Your task to perform on an android device: turn on showing notifications on the lock screen Image 0: 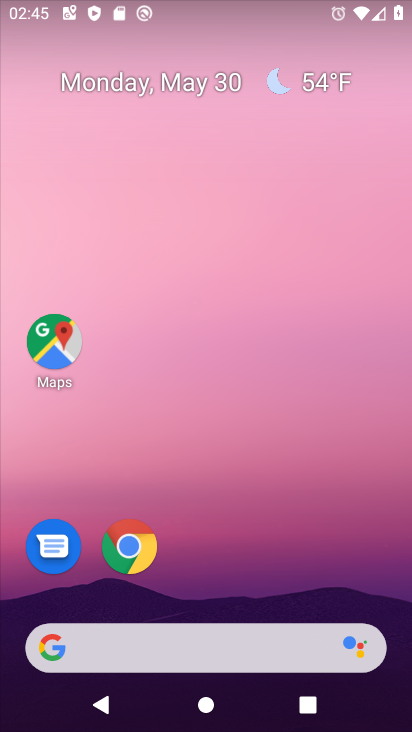
Step 0: press home button
Your task to perform on an android device: turn on showing notifications on the lock screen Image 1: 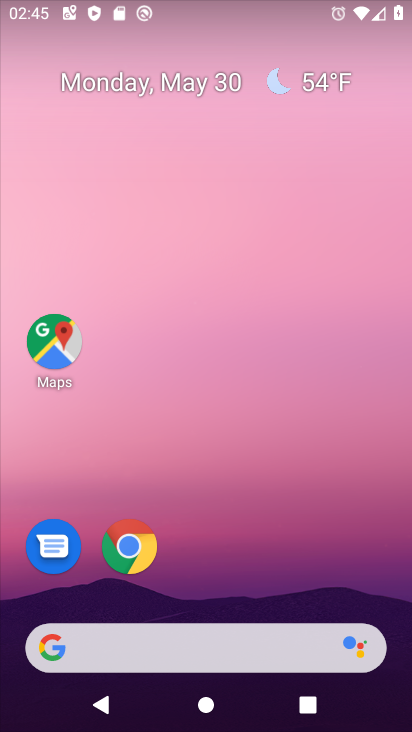
Step 1: drag from (199, 515) to (240, 133)
Your task to perform on an android device: turn on showing notifications on the lock screen Image 2: 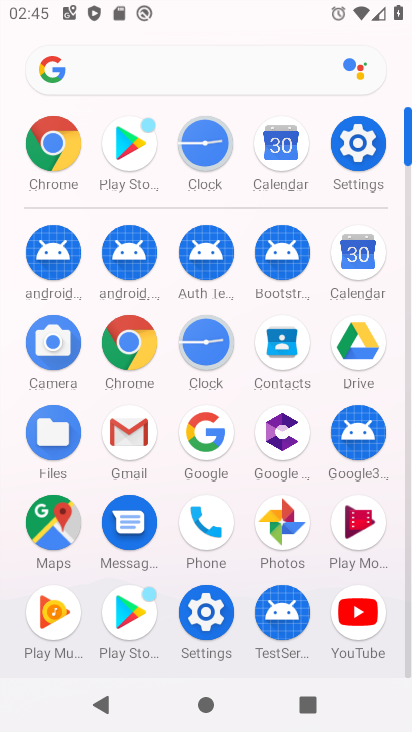
Step 2: click (207, 604)
Your task to perform on an android device: turn on showing notifications on the lock screen Image 3: 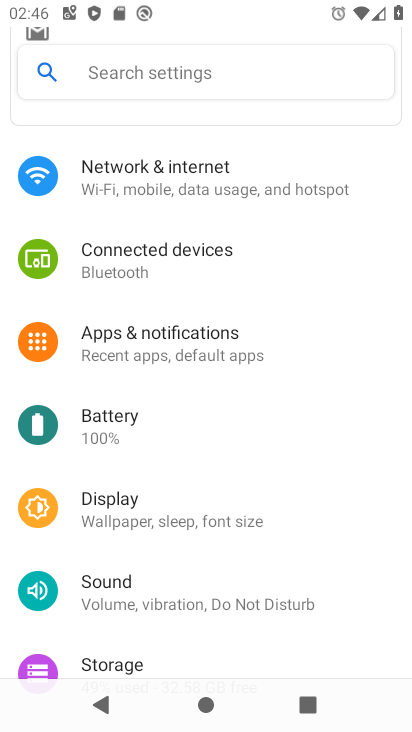
Step 3: click (214, 332)
Your task to perform on an android device: turn on showing notifications on the lock screen Image 4: 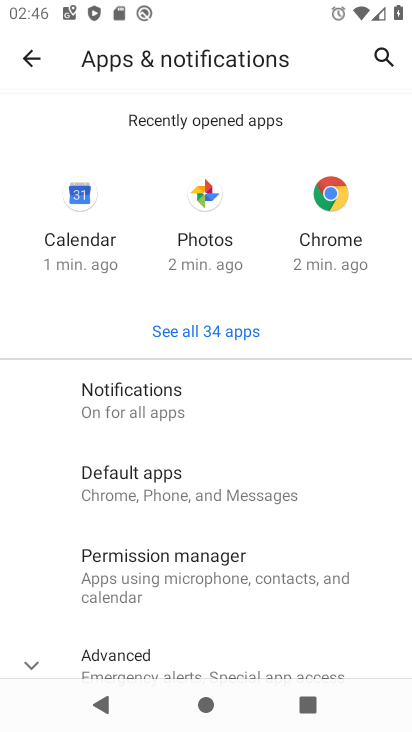
Step 4: click (209, 388)
Your task to perform on an android device: turn on showing notifications on the lock screen Image 5: 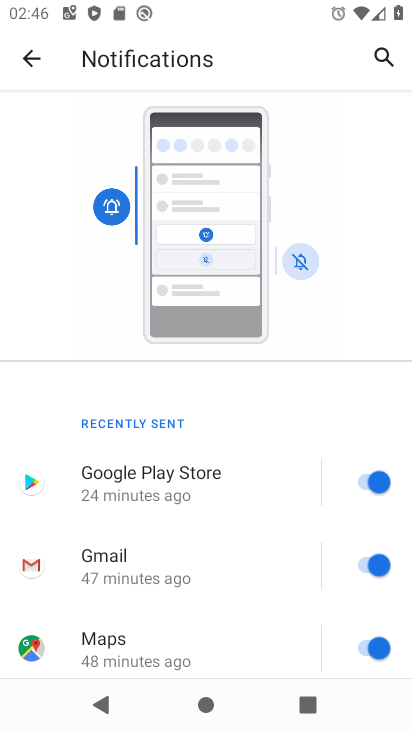
Step 5: drag from (239, 635) to (304, 300)
Your task to perform on an android device: turn on showing notifications on the lock screen Image 6: 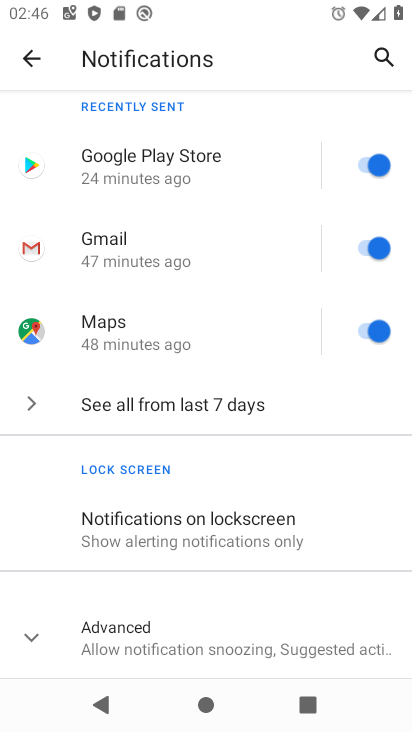
Step 6: click (251, 528)
Your task to perform on an android device: turn on showing notifications on the lock screen Image 7: 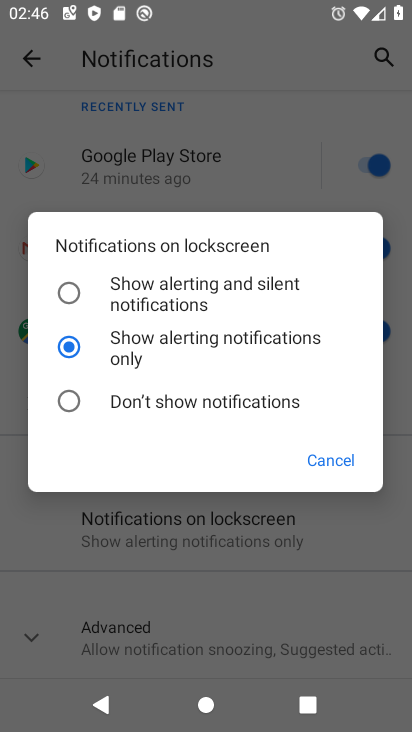
Step 7: click (77, 281)
Your task to perform on an android device: turn on showing notifications on the lock screen Image 8: 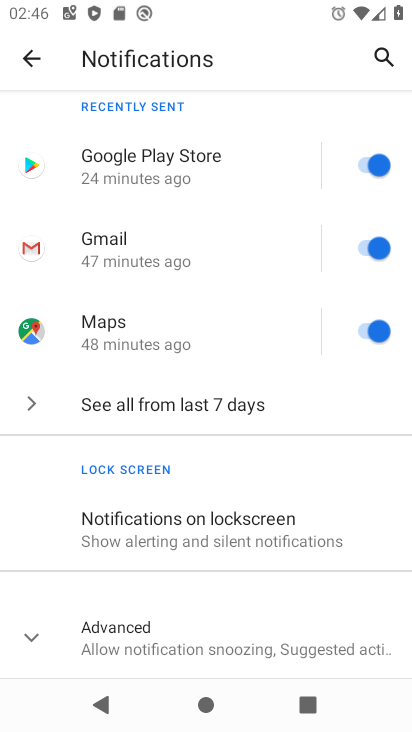
Step 8: task complete